Your task to perform on an android device: Open privacy settings Image 0: 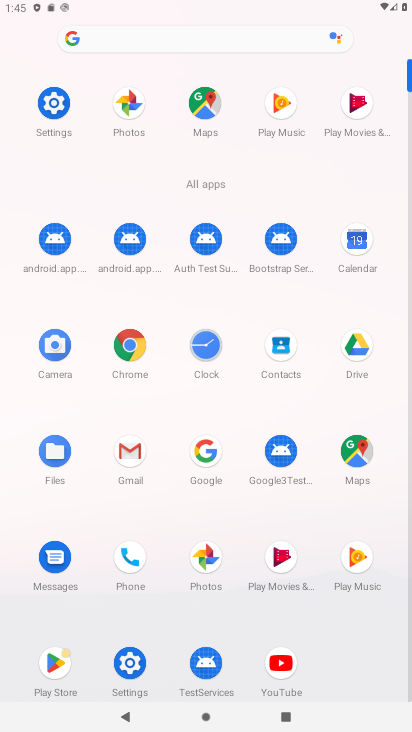
Step 0: press home button
Your task to perform on an android device: Open privacy settings Image 1: 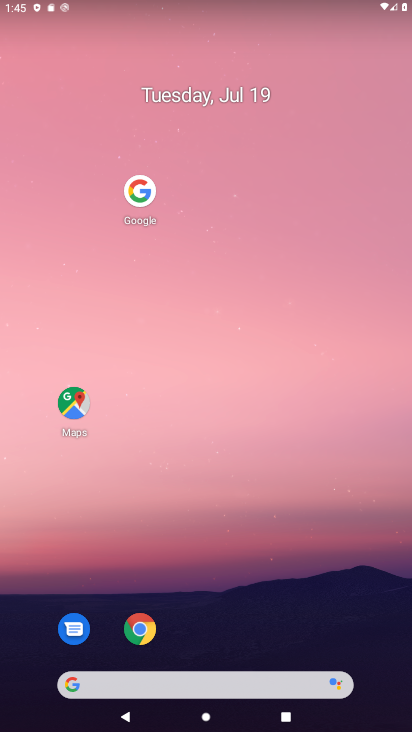
Step 1: drag from (225, 632) to (251, 103)
Your task to perform on an android device: Open privacy settings Image 2: 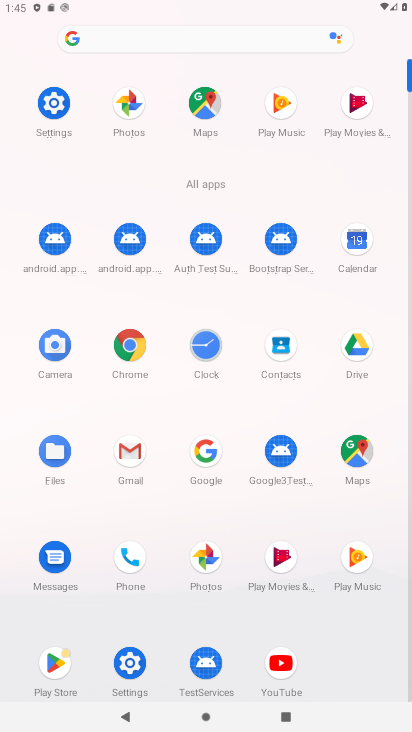
Step 2: drag from (60, 110) to (90, 212)
Your task to perform on an android device: Open privacy settings Image 3: 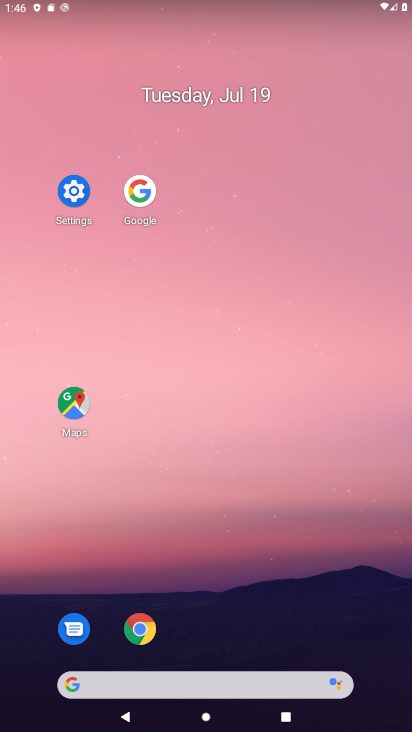
Step 3: click (66, 180)
Your task to perform on an android device: Open privacy settings Image 4: 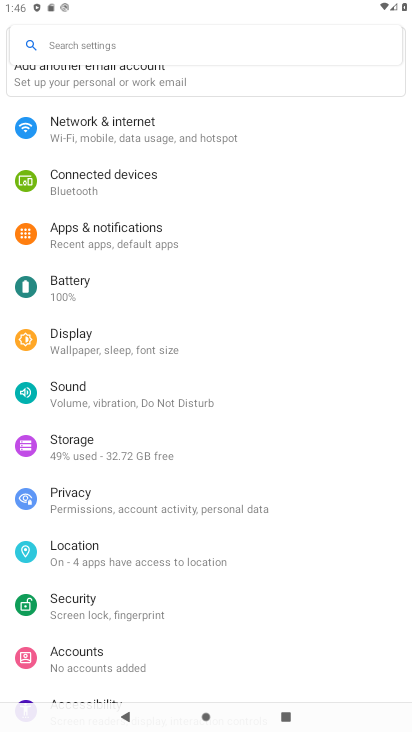
Step 4: click (127, 492)
Your task to perform on an android device: Open privacy settings Image 5: 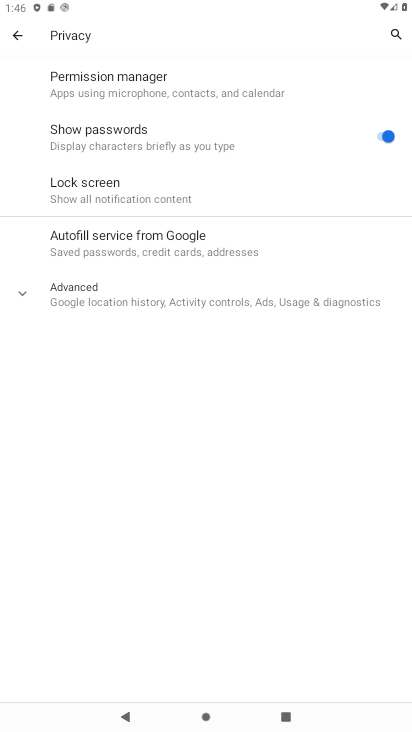
Step 5: task complete